Your task to perform on an android device: turn off location history Image 0: 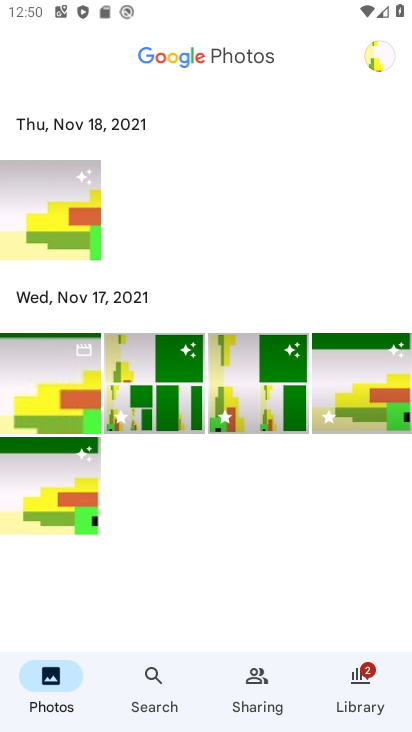
Step 0: drag from (346, 670) to (297, 129)
Your task to perform on an android device: turn off location history Image 1: 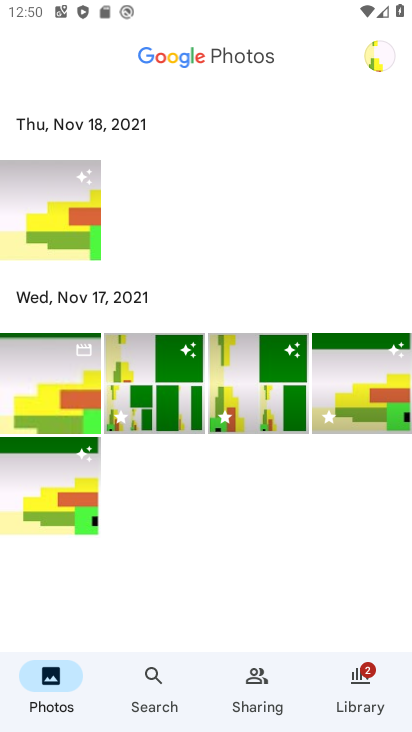
Step 1: press home button
Your task to perform on an android device: turn off location history Image 2: 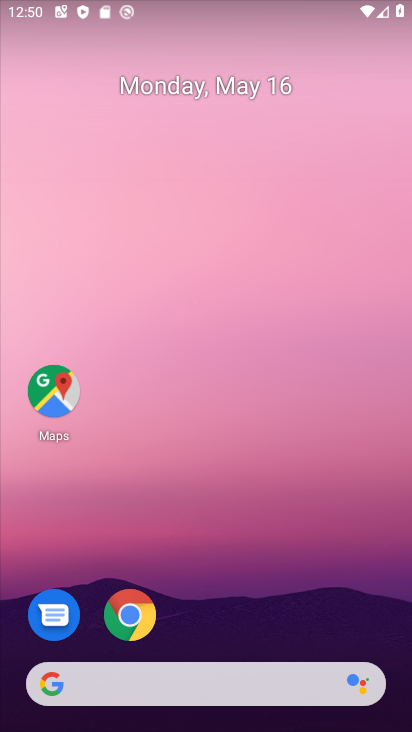
Step 2: drag from (246, 649) to (294, 56)
Your task to perform on an android device: turn off location history Image 3: 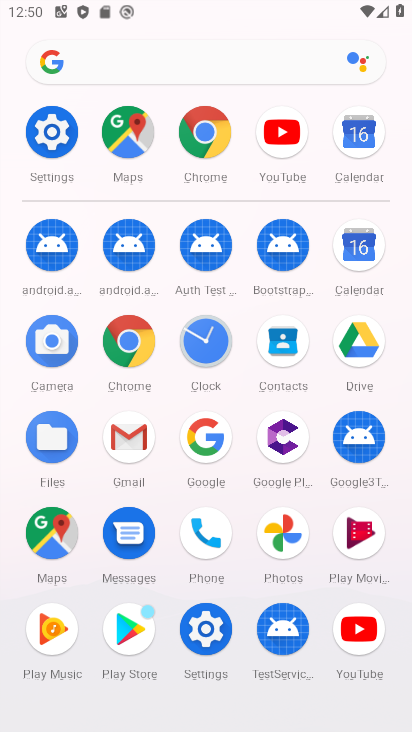
Step 3: click (46, 149)
Your task to perform on an android device: turn off location history Image 4: 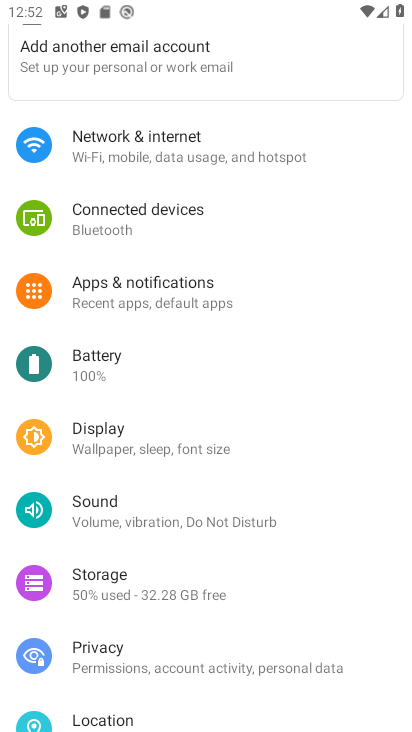
Step 4: drag from (172, 668) to (184, 317)
Your task to perform on an android device: turn off location history Image 5: 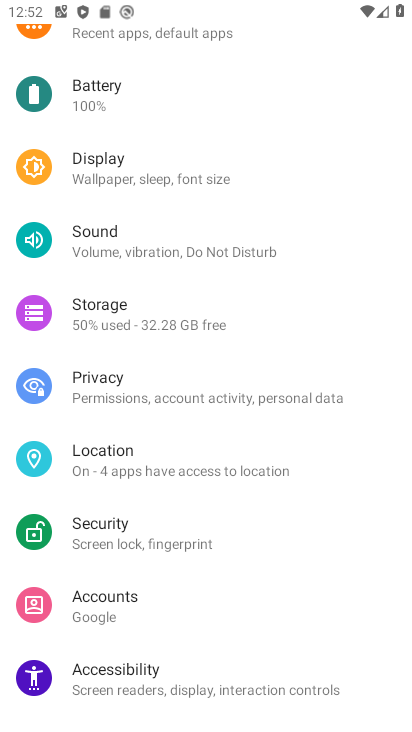
Step 5: click (137, 458)
Your task to perform on an android device: turn off location history Image 6: 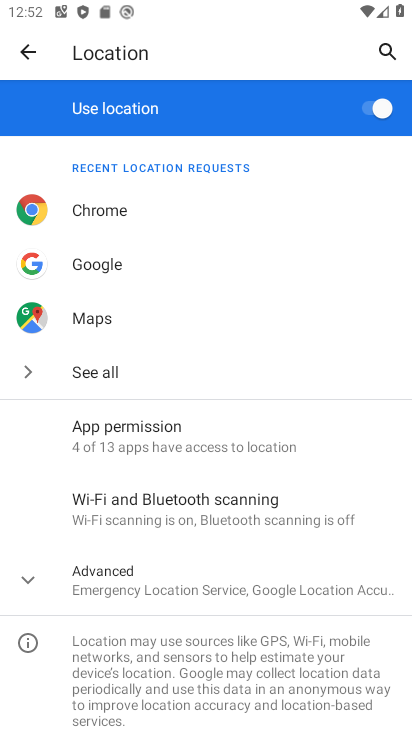
Step 6: click (238, 564)
Your task to perform on an android device: turn off location history Image 7: 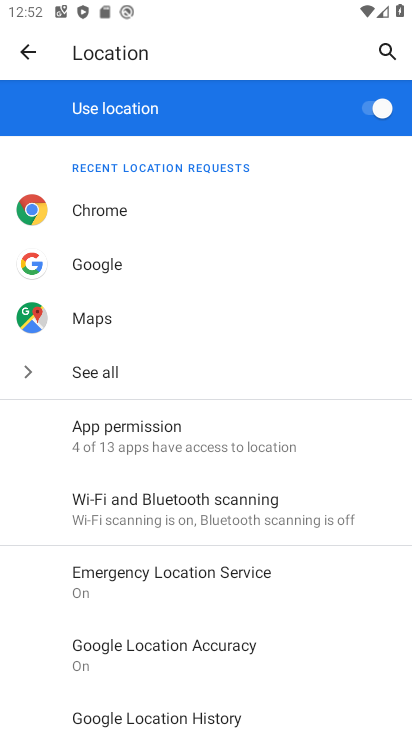
Step 7: drag from (196, 691) to (179, 332)
Your task to perform on an android device: turn off location history Image 8: 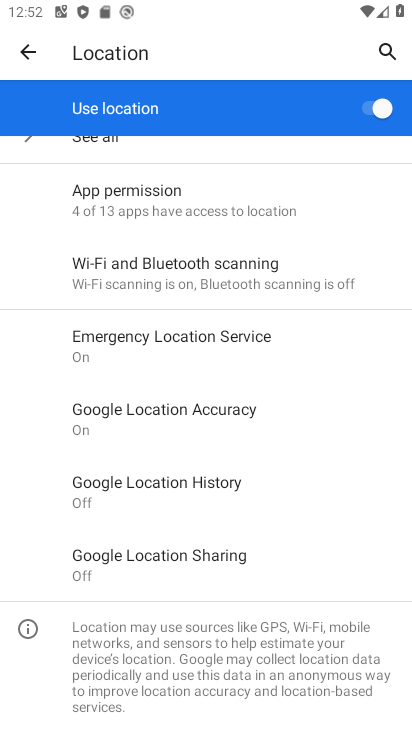
Step 8: click (170, 468)
Your task to perform on an android device: turn off location history Image 9: 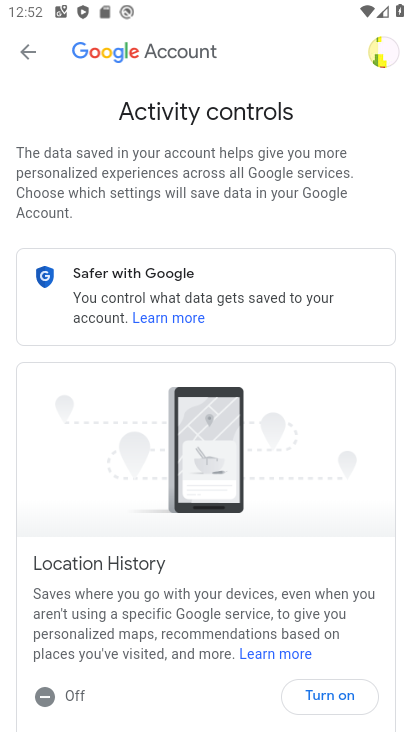
Step 9: task complete